Your task to perform on an android device: Go to calendar. Show me events next week Image 0: 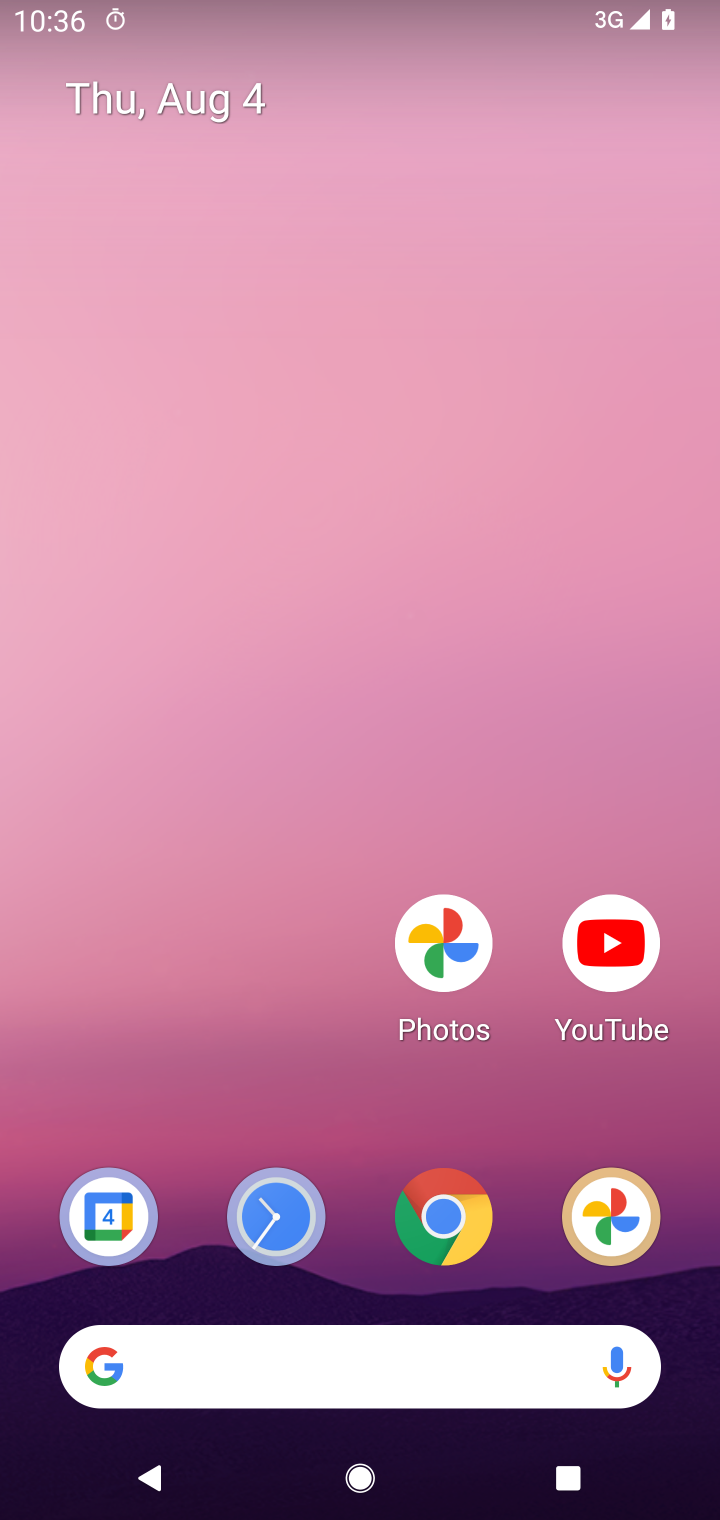
Step 0: drag from (345, 1273) to (271, 116)
Your task to perform on an android device: Go to calendar. Show me events next week Image 1: 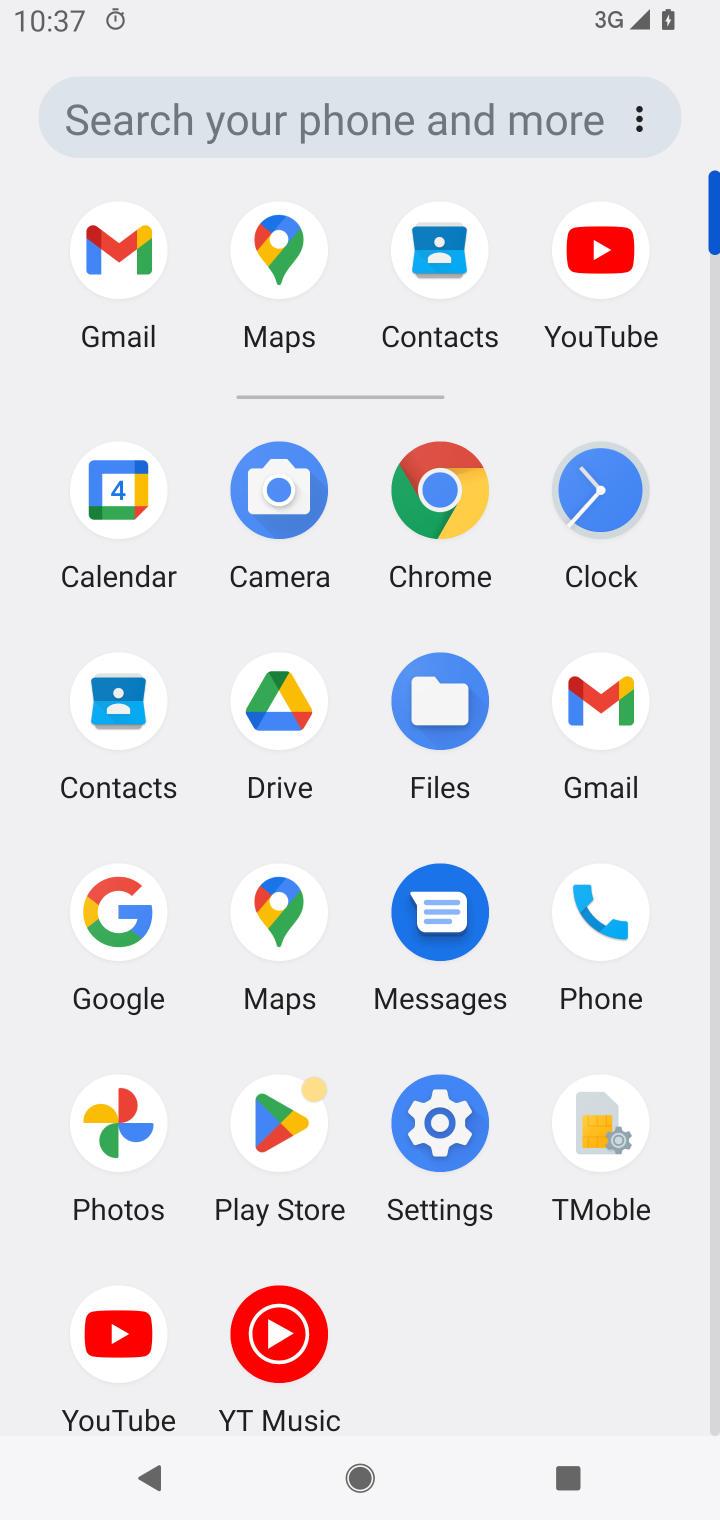
Step 1: click (108, 486)
Your task to perform on an android device: Go to calendar. Show me events next week Image 2: 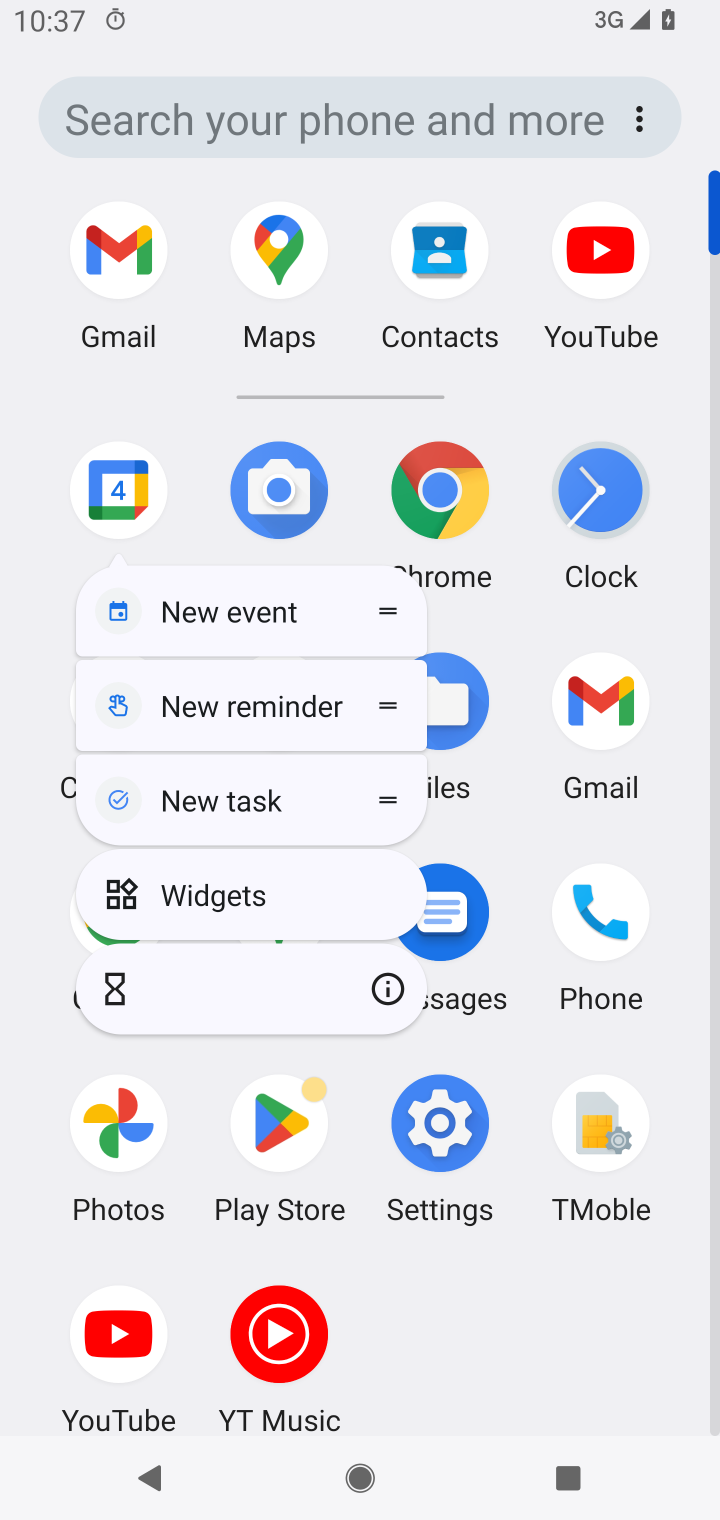
Step 2: click (24, 1004)
Your task to perform on an android device: Go to calendar. Show me events next week Image 3: 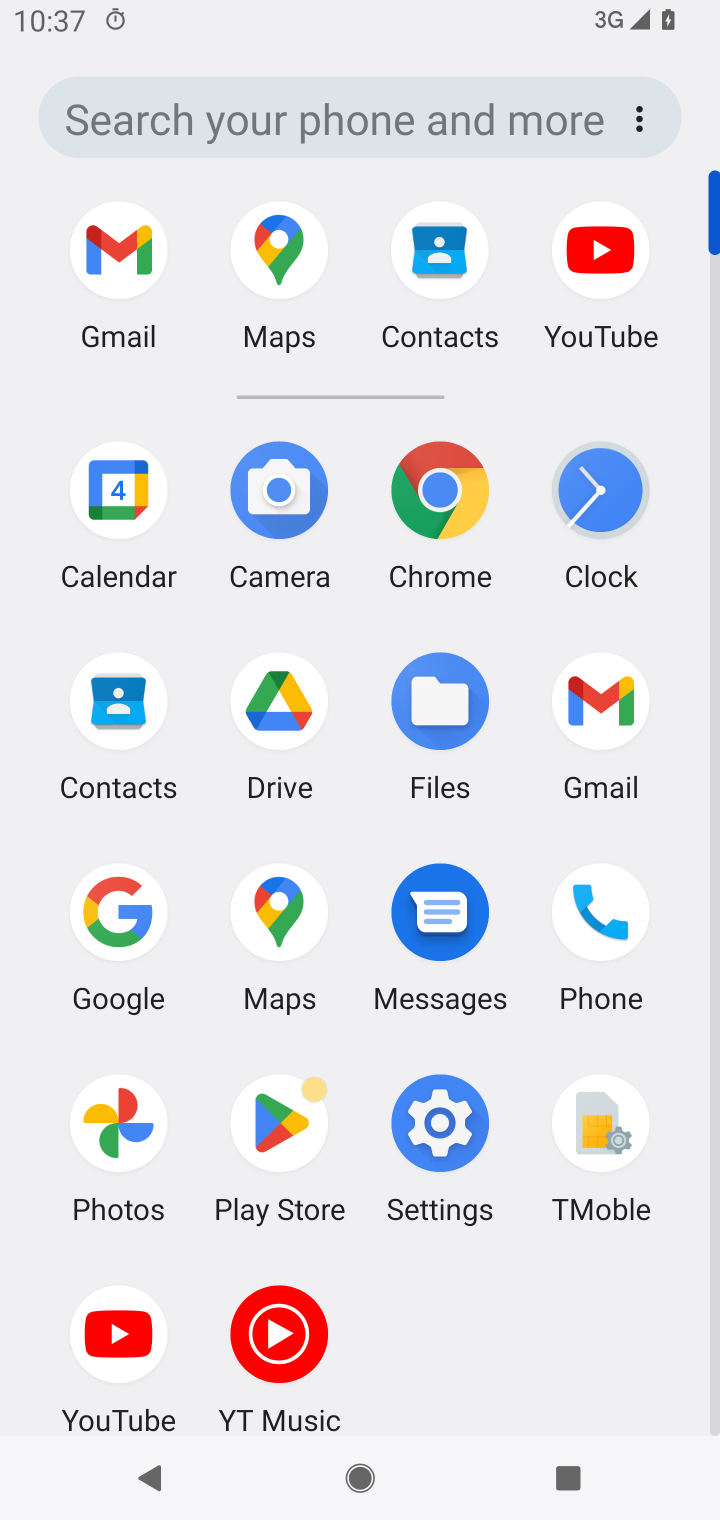
Step 3: click (128, 511)
Your task to perform on an android device: Go to calendar. Show me events next week Image 4: 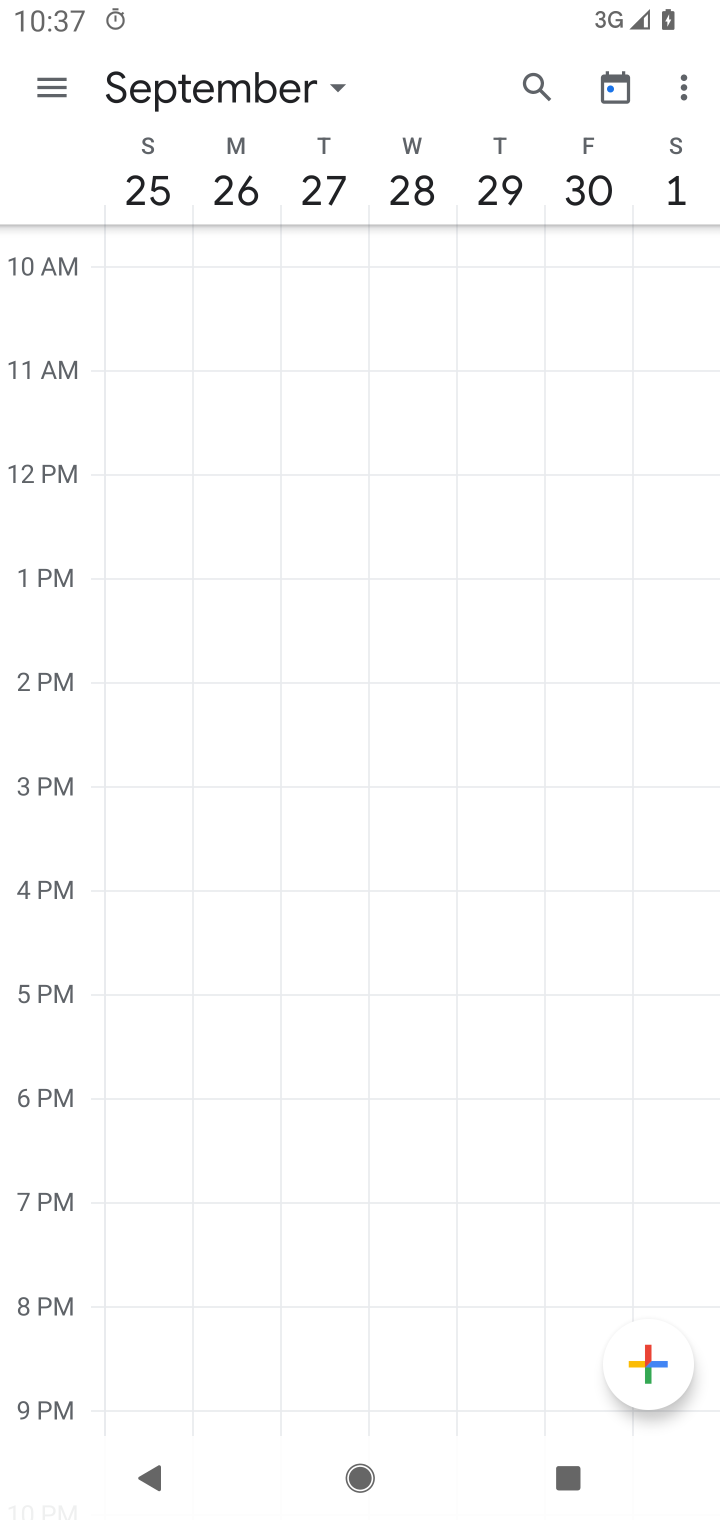
Step 4: click (331, 87)
Your task to perform on an android device: Go to calendar. Show me events next week Image 5: 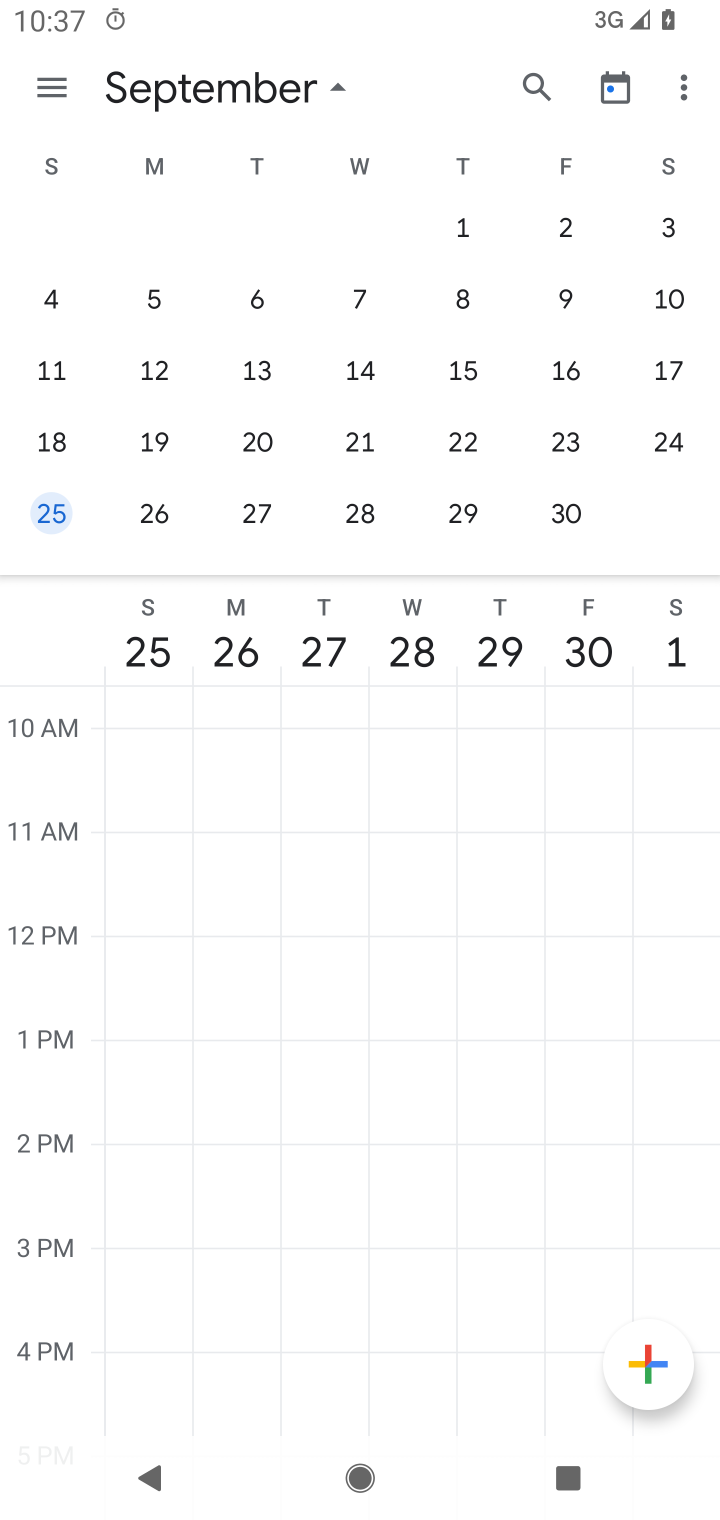
Step 5: drag from (91, 384) to (577, 348)
Your task to perform on an android device: Go to calendar. Show me events next week Image 6: 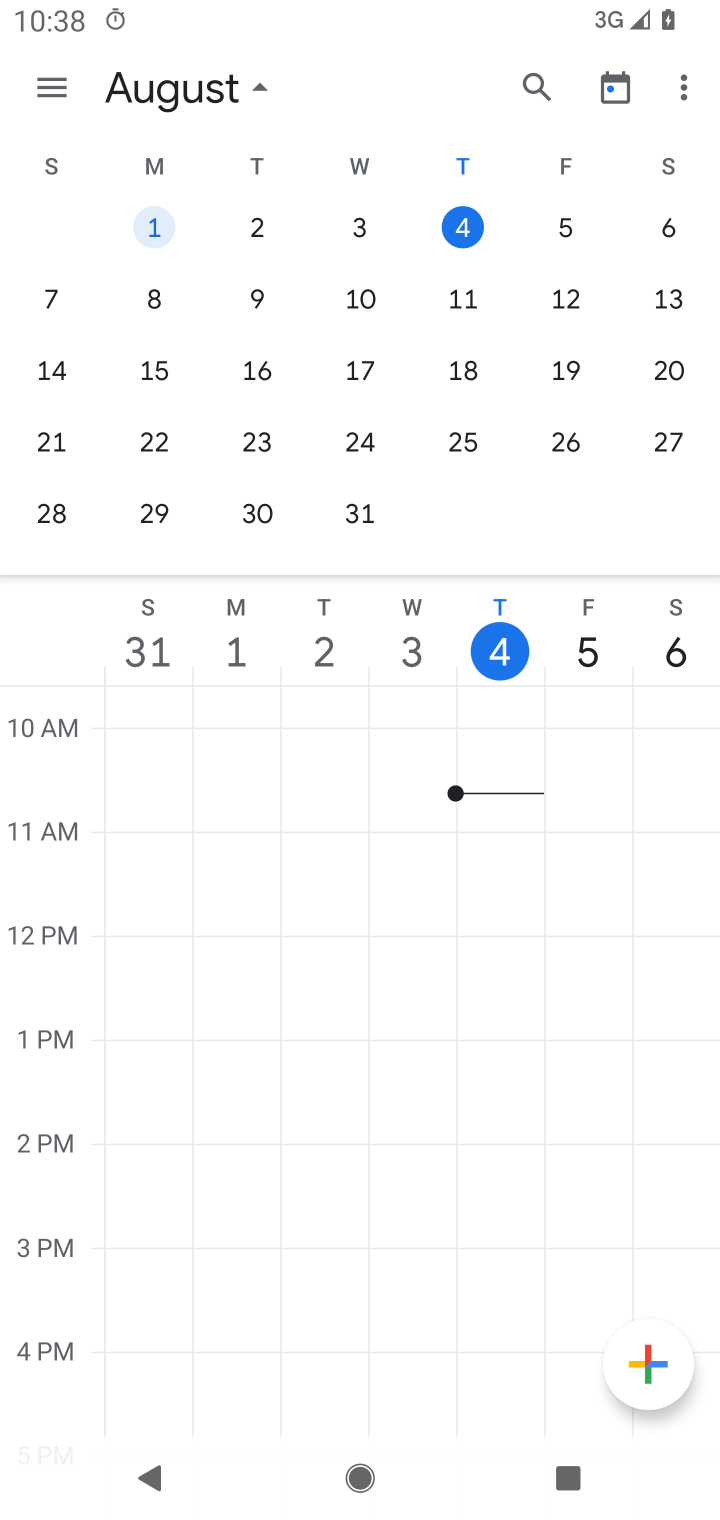
Step 6: click (157, 294)
Your task to perform on an android device: Go to calendar. Show me events next week Image 7: 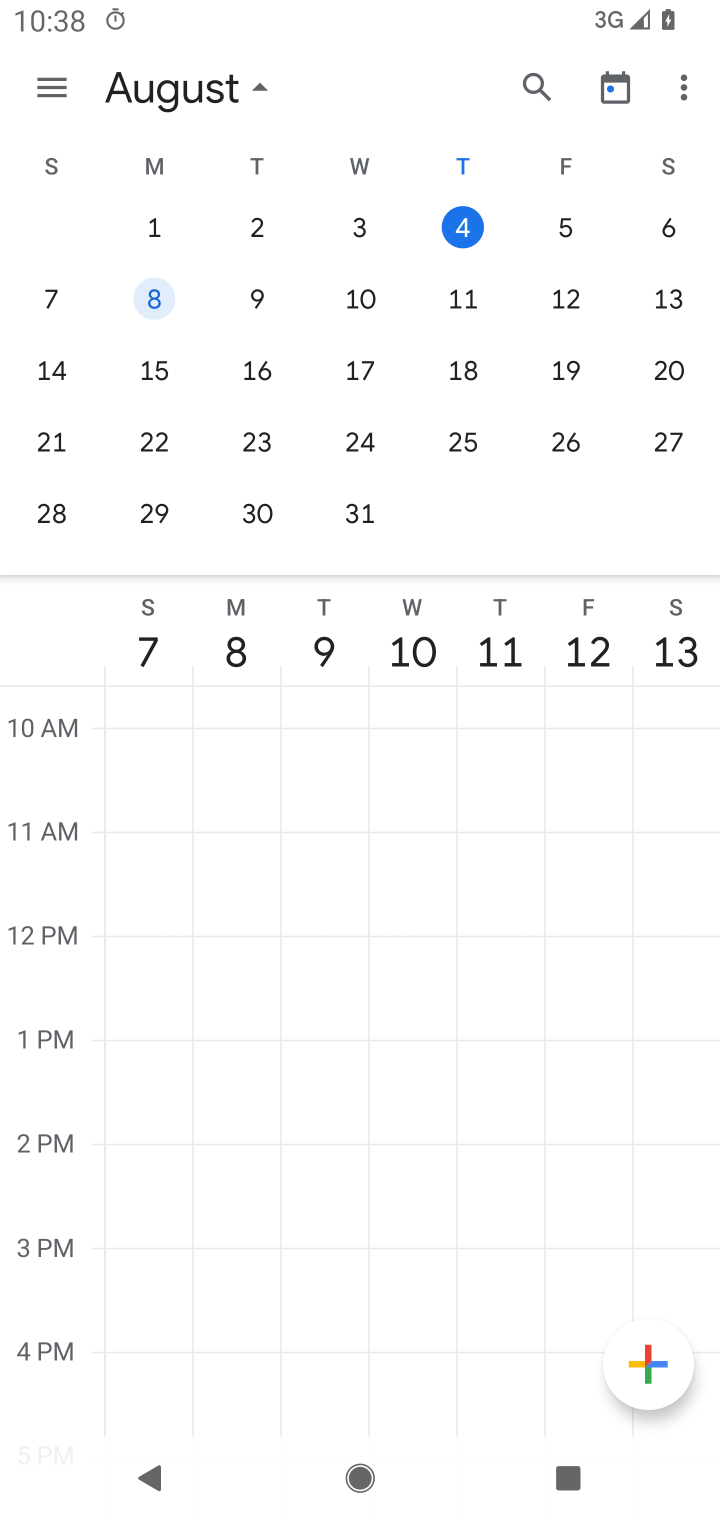
Step 7: click (49, 87)
Your task to perform on an android device: Go to calendar. Show me events next week Image 8: 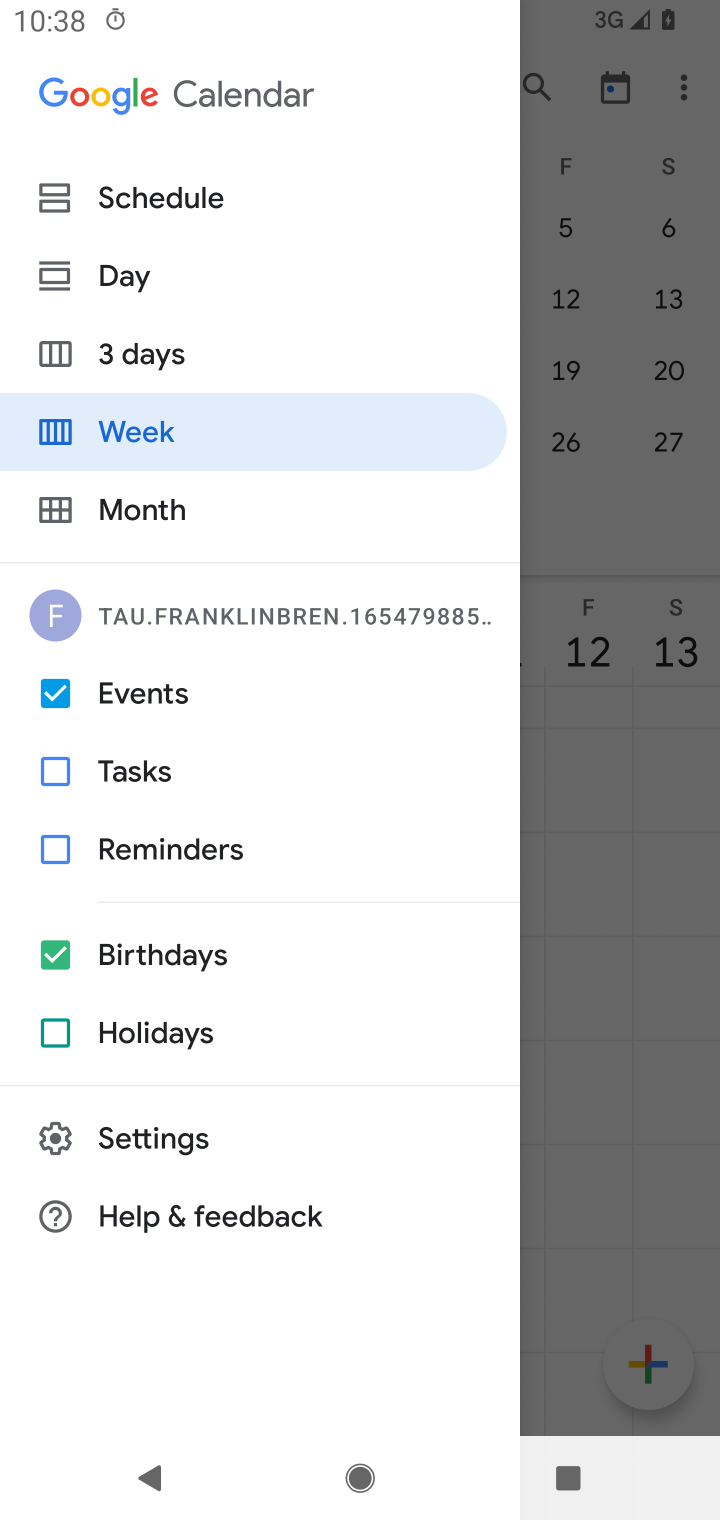
Step 8: click (149, 427)
Your task to perform on an android device: Go to calendar. Show me events next week Image 9: 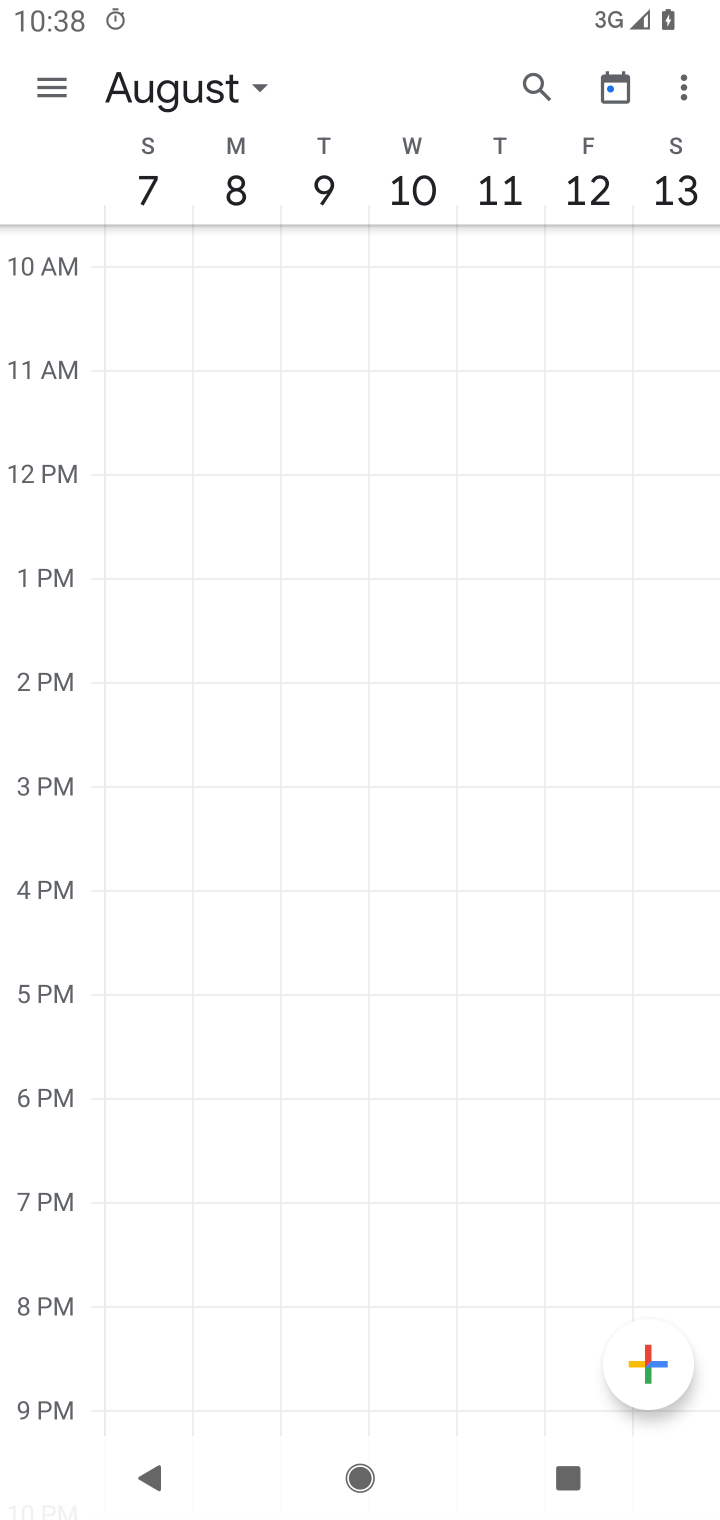
Step 9: task complete